Your task to perform on an android device: What's a good restaurant in New Jersey? Image 0: 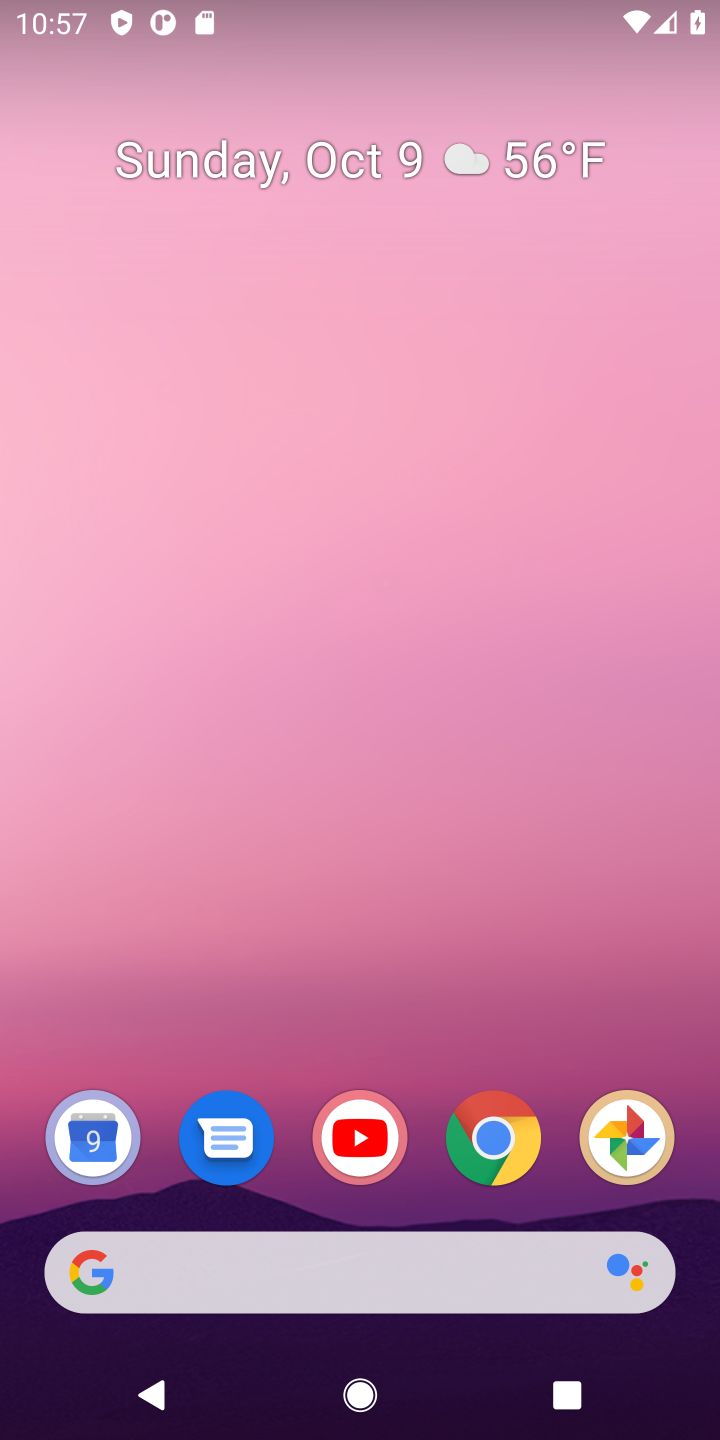
Step 0: drag from (324, 1039) to (702, 18)
Your task to perform on an android device: What's a good restaurant in New Jersey? Image 1: 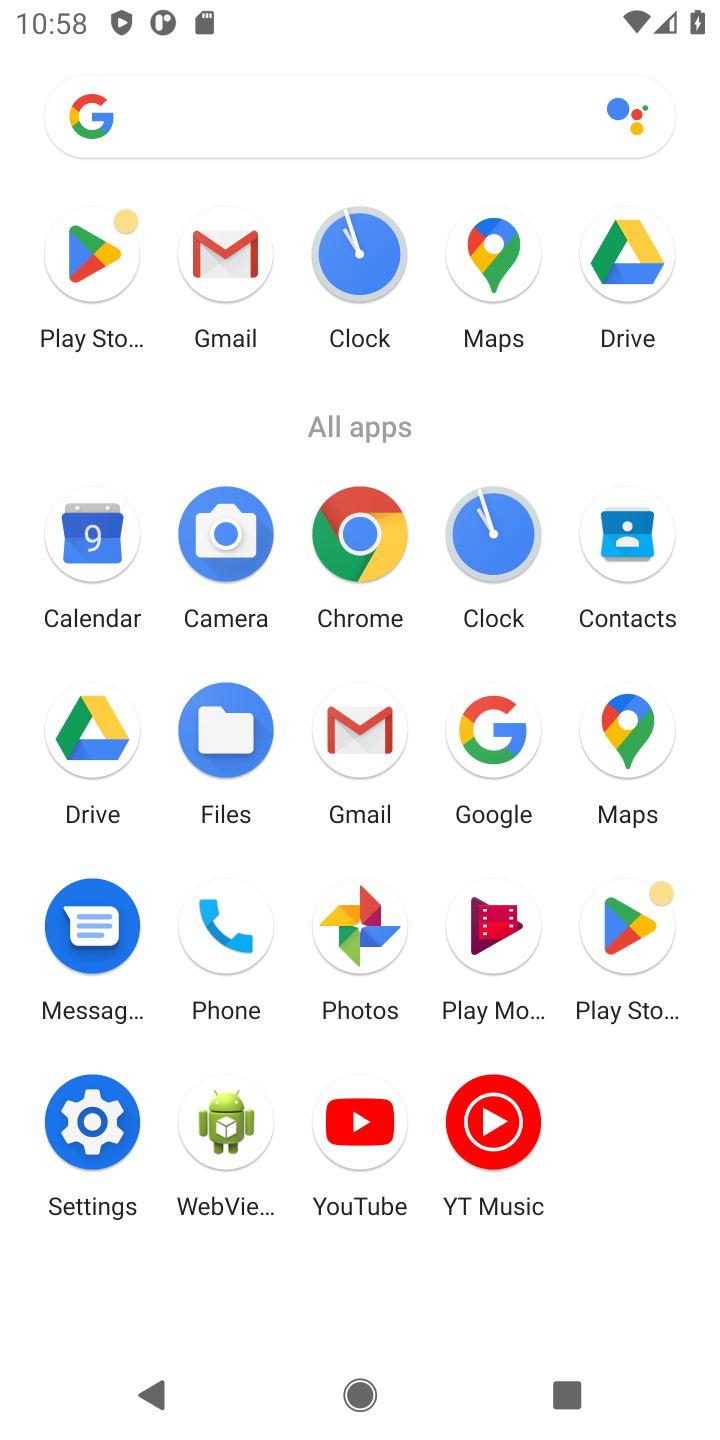
Step 1: click (350, 526)
Your task to perform on an android device: What's a good restaurant in New Jersey? Image 2: 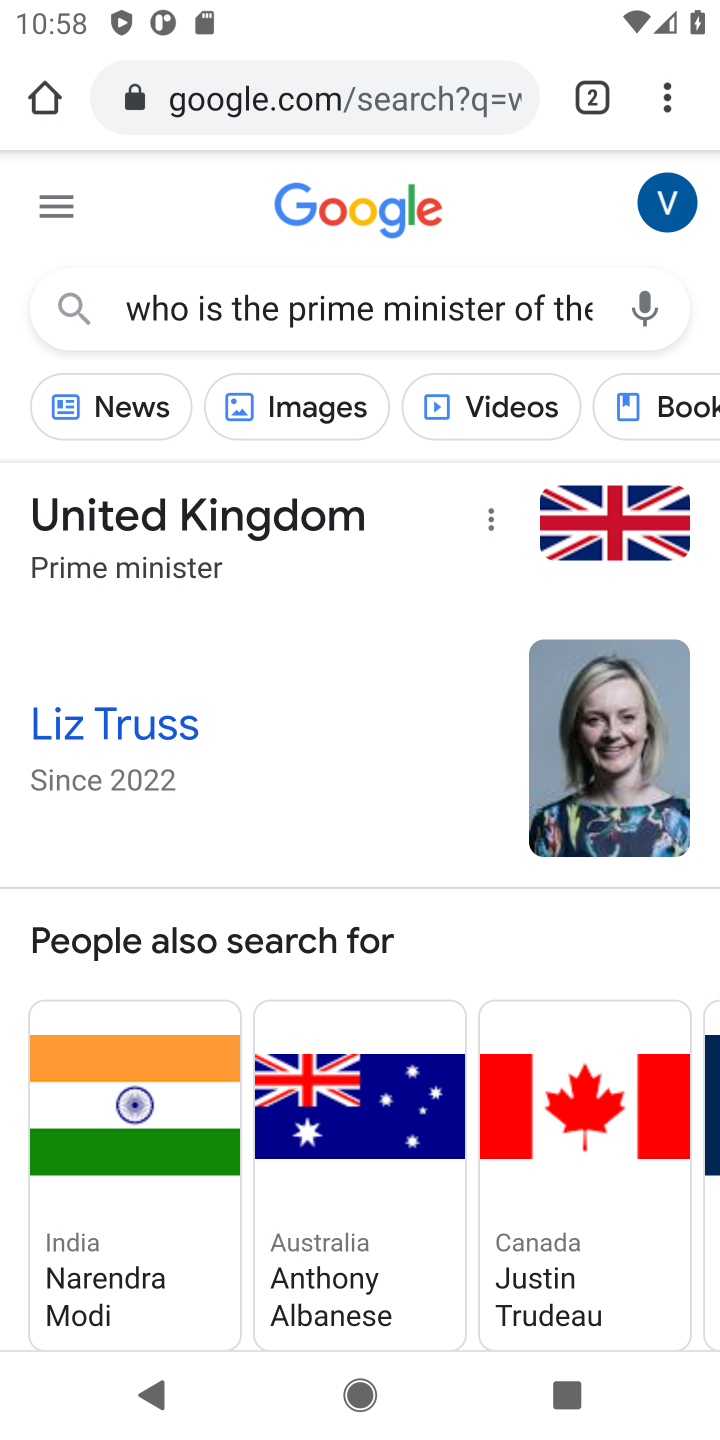
Step 2: click (290, 89)
Your task to perform on an android device: What's a good restaurant in New Jersey? Image 3: 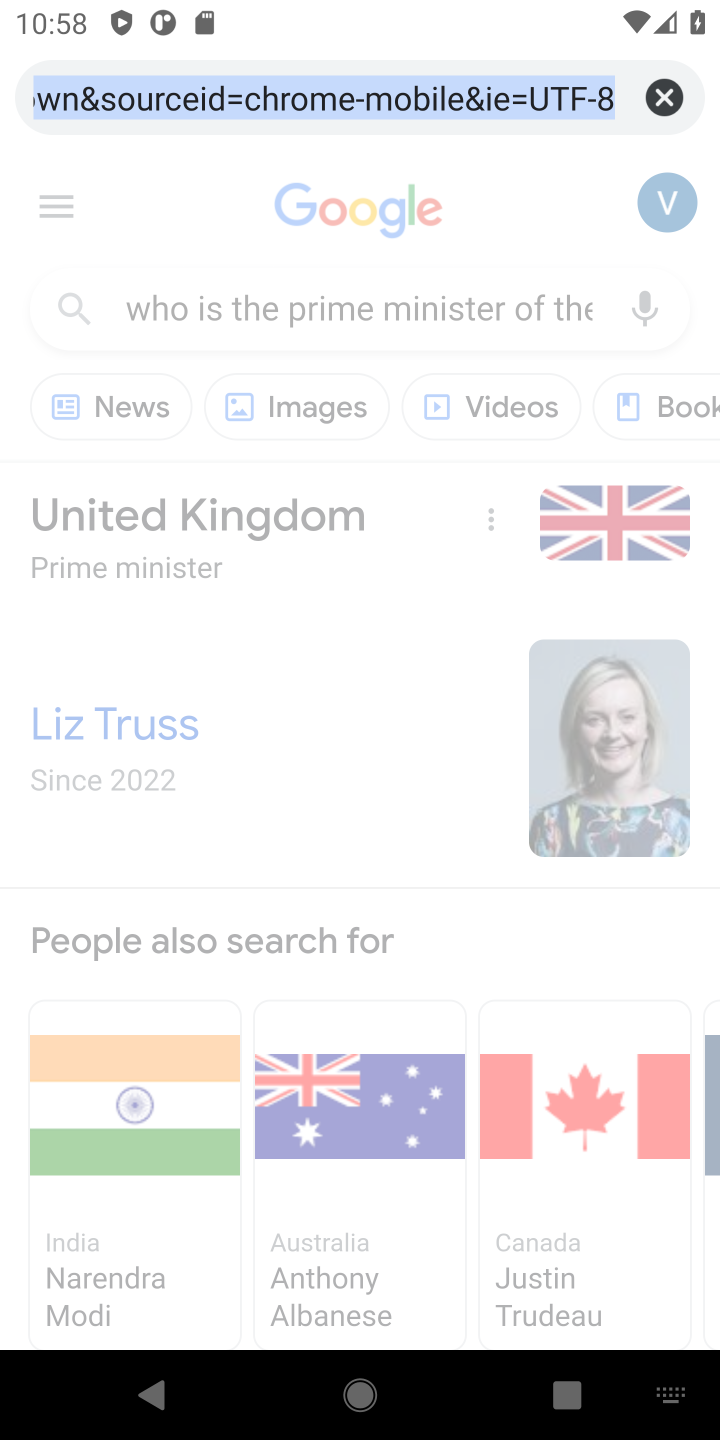
Step 3: click (656, 93)
Your task to perform on an android device: What's a good restaurant in New Jersey? Image 4: 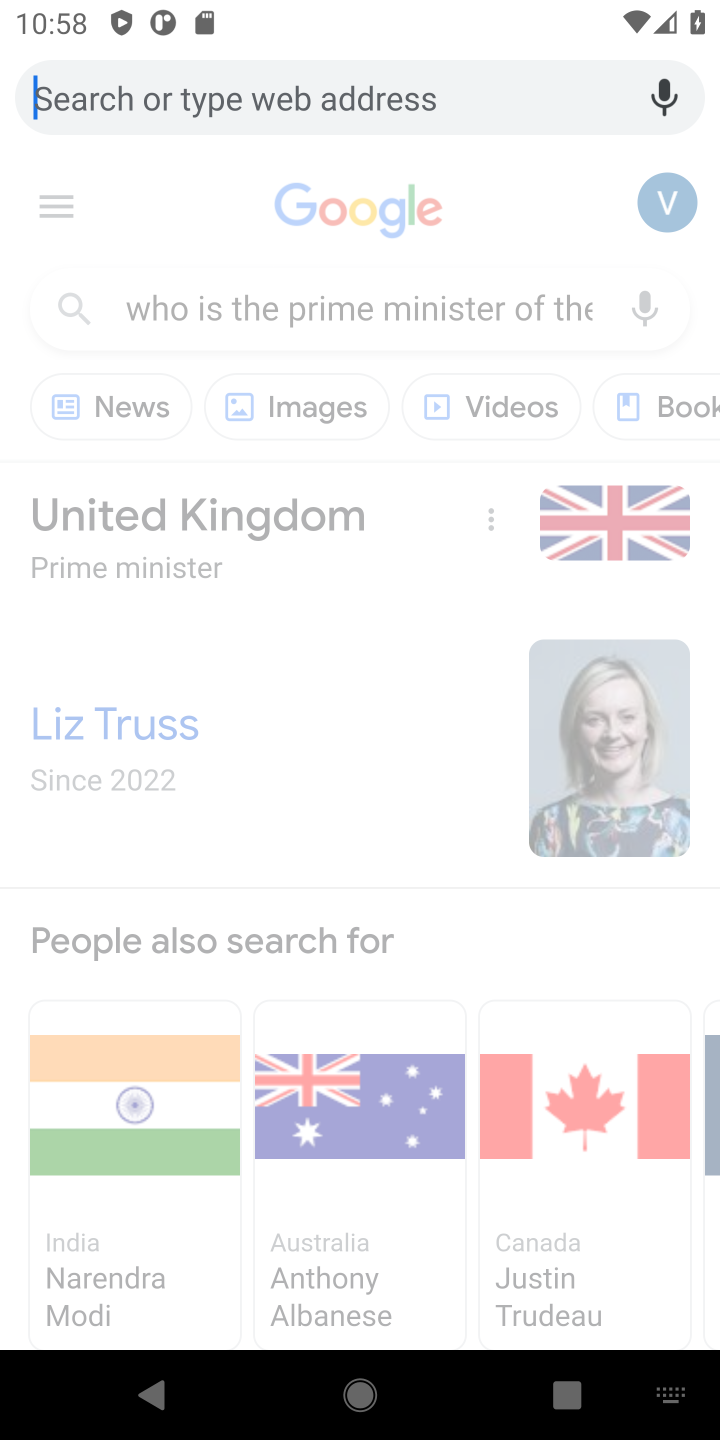
Step 4: type "What's a good restaurant in New Jersey?"
Your task to perform on an android device: What's a good restaurant in New Jersey? Image 5: 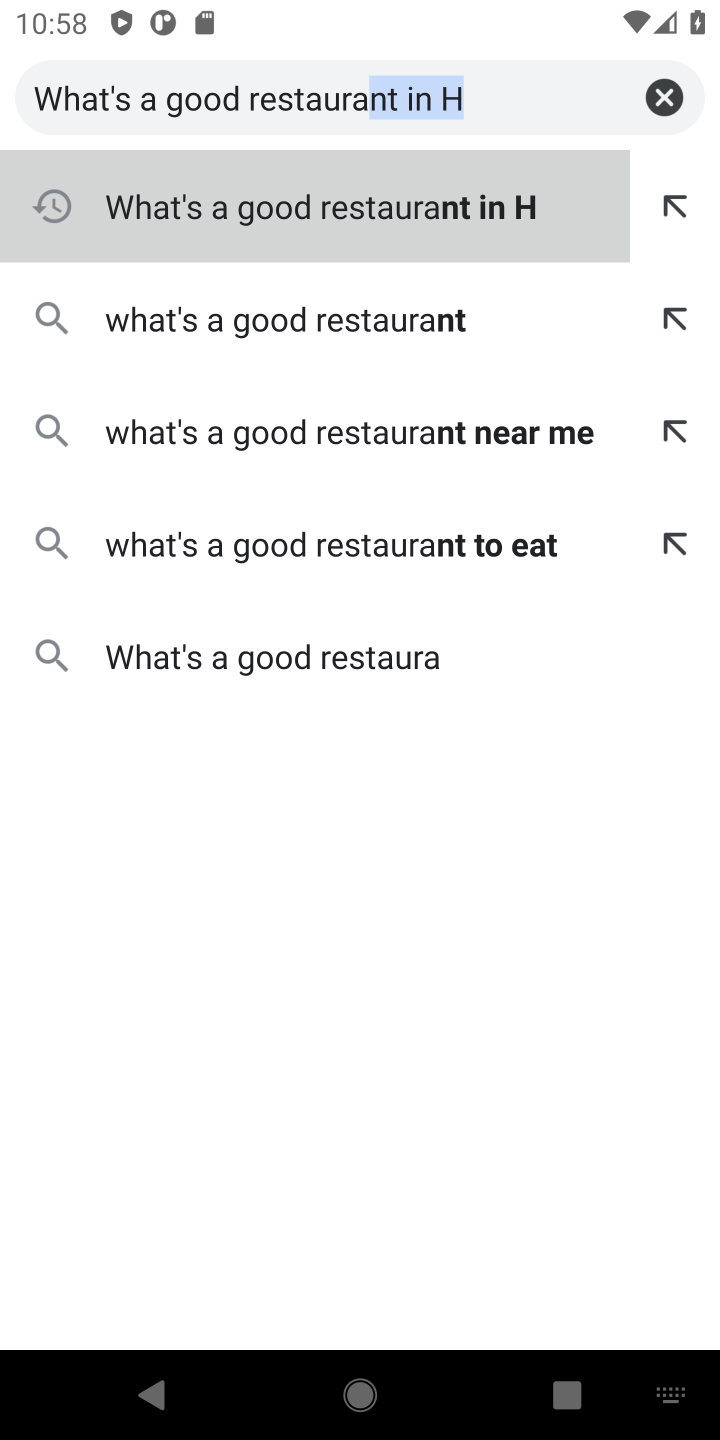
Step 5: click (317, 209)
Your task to perform on an android device: What's a good restaurant in New Jersey? Image 6: 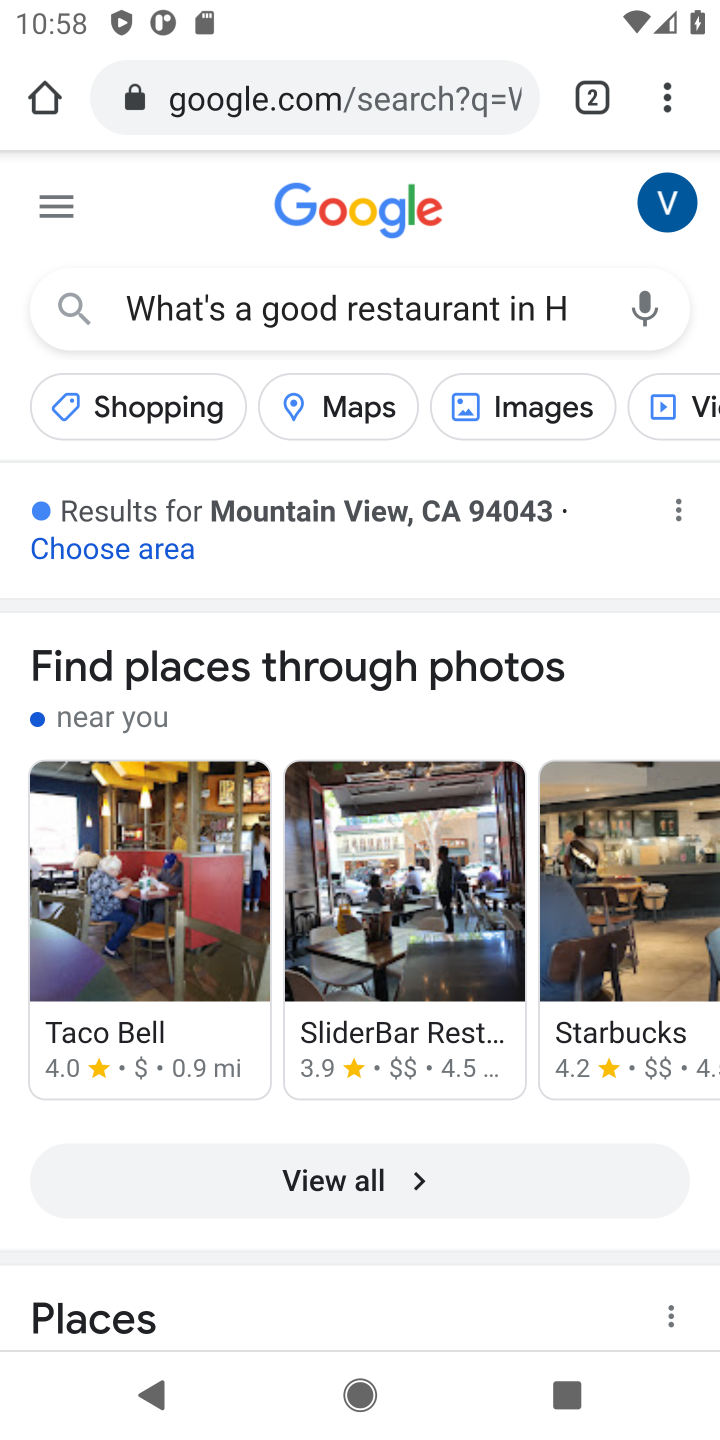
Step 6: task complete